Your task to perform on an android device: toggle location history Image 0: 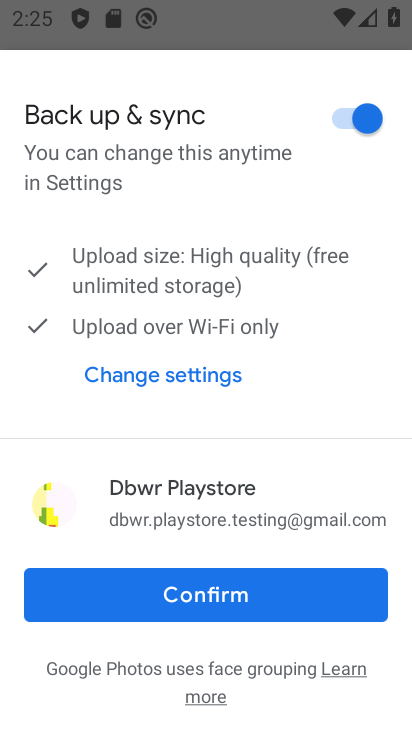
Step 0: press home button
Your task to perform on an android device: toggle location history Image 1: 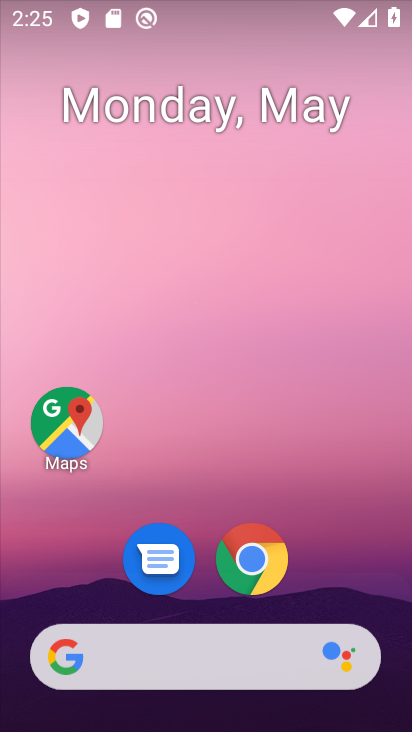
Step 1: click (59, 421)
Your task to perform on an android device: toggle location history Image 2: 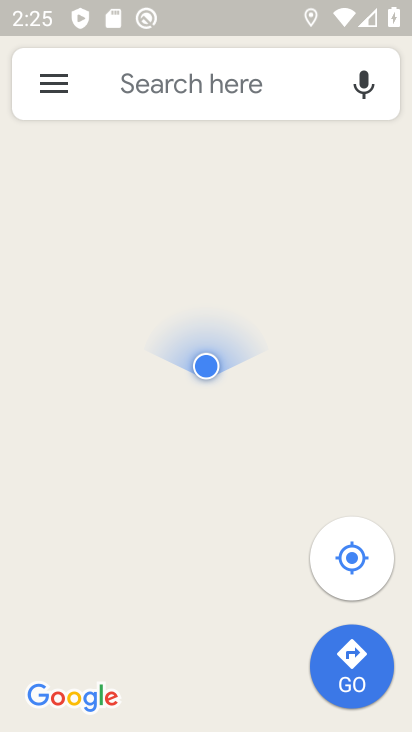
Step 2: click (50, 81)
Your task to perform on an android device: toggle location history Image 3: 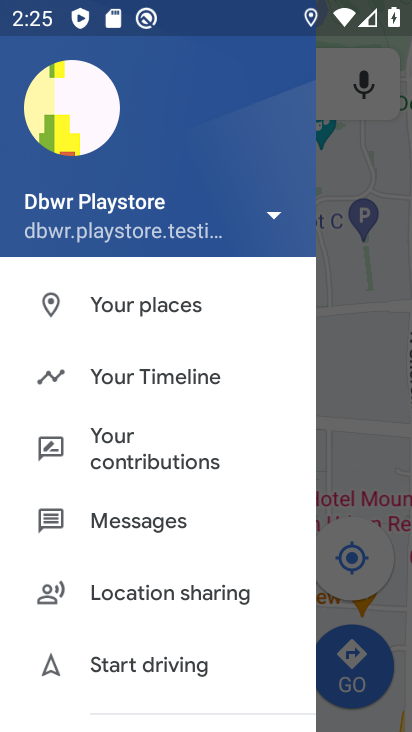
Step 3: click (149, 392)
Your task to perform on an android device: toggle location history Image 4: 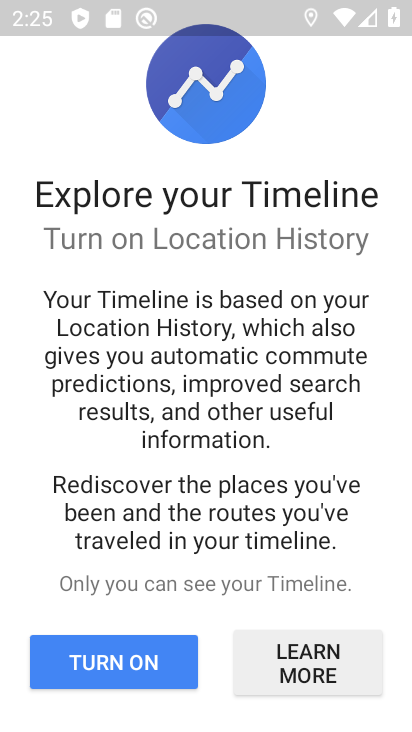
Step 4: click (130, 672)
Your task to perform on an android device: toggle location history Image 5: 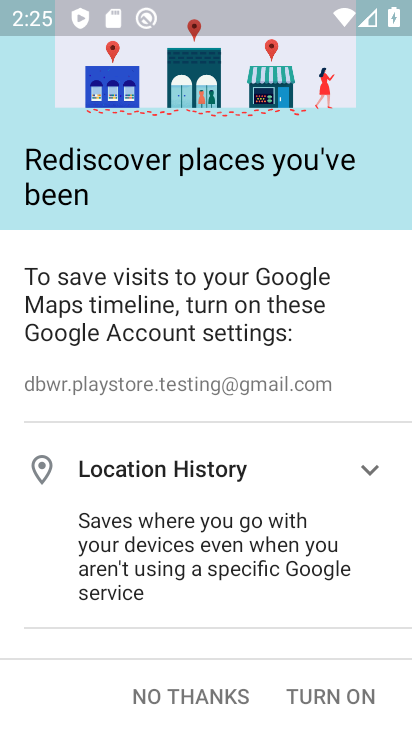
Step 5: click (322, 690)
Your task to perform on an android device: toggle location history Image 6: 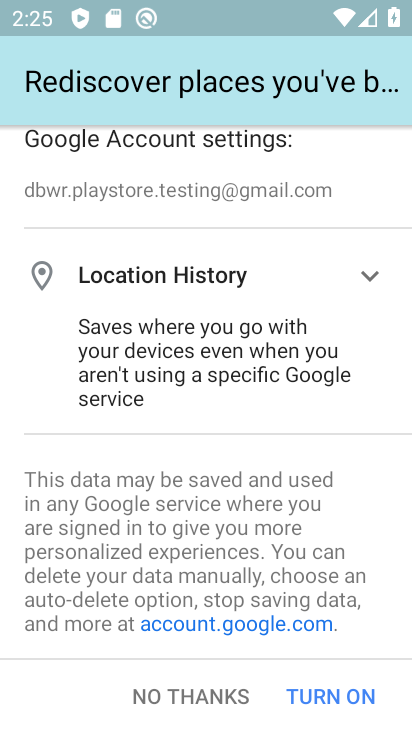
Step 6: drag from (343, 579) to (322, 226)
Your task to perform on an android device: toggle location history Image 7: 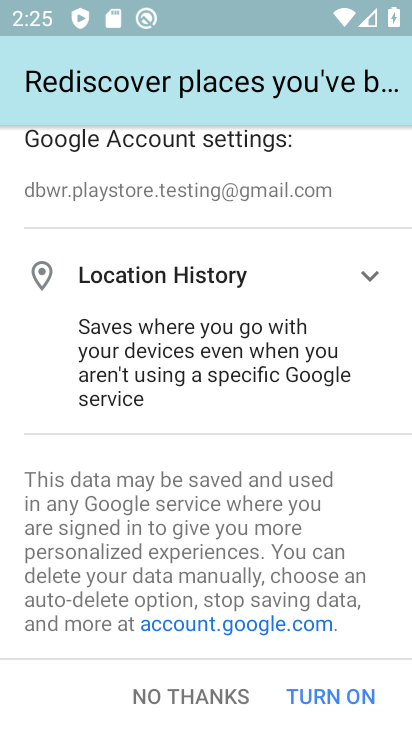
Step 7: click (321, 690)
Your task to perform on an android device: toggle location history Image 8: 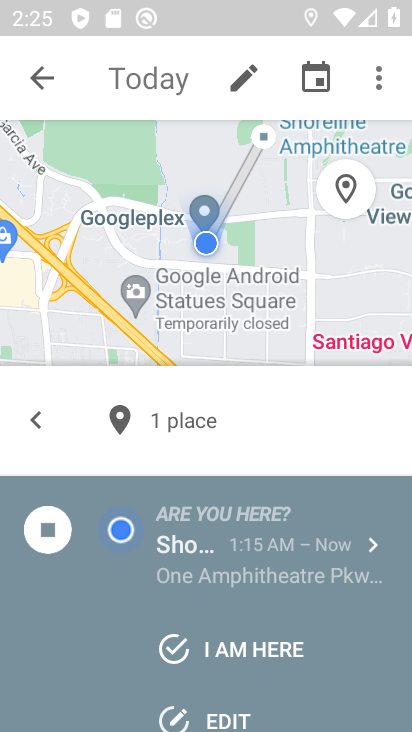
Step 8: click (381, 73)
Your task to perform on an android device: toggle location history Image 9: 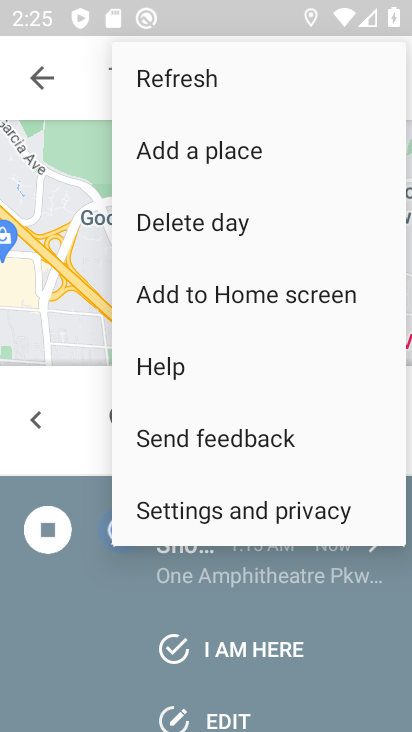
Step 9: click (216, 506)
Your task to perform on an android device: toggle location history Image 10: 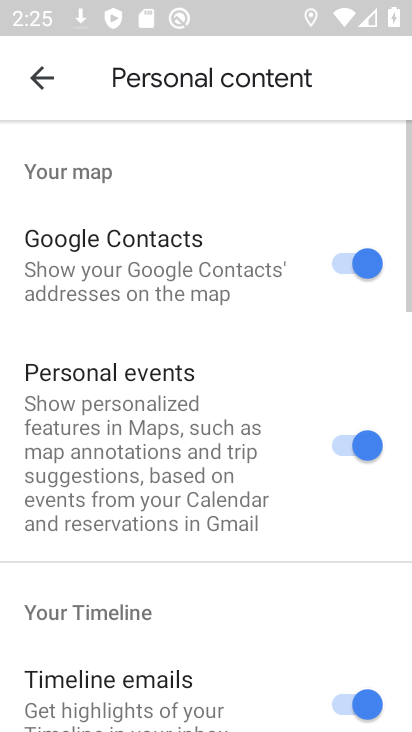
Step 10: task complete